Your task to perform on an android device: Search for "bose soundlink mini" on newegg.com, select the first entry, add it to the cart, then select checkout. Image 0: 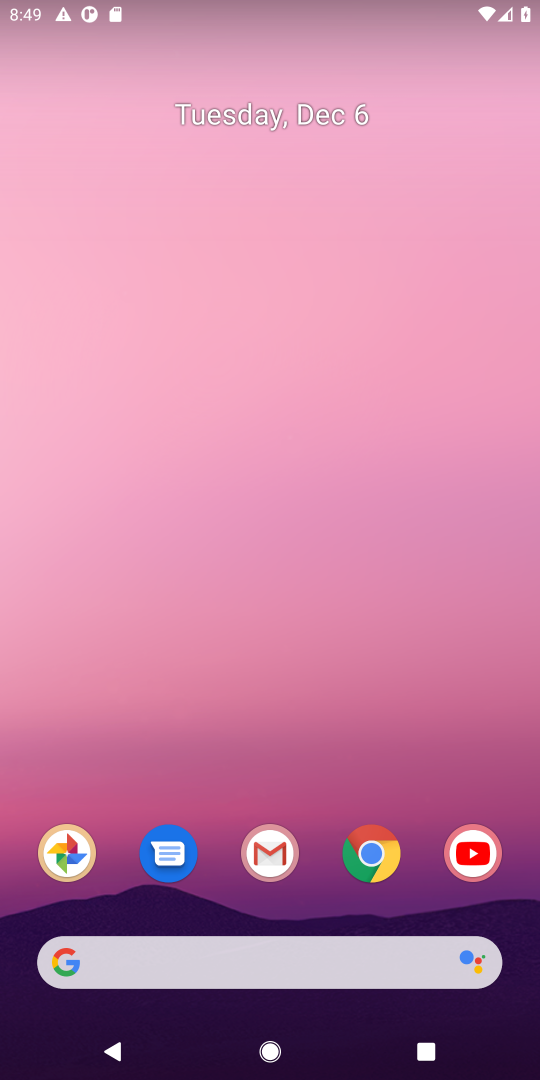
Step 0: drag from (303, 986) to (290, 365)
Your task to perform on an android device: Search for "bose soundlink mini" on newegg.com, select the first entry, add it to the cart, then select checkout. Image 1: 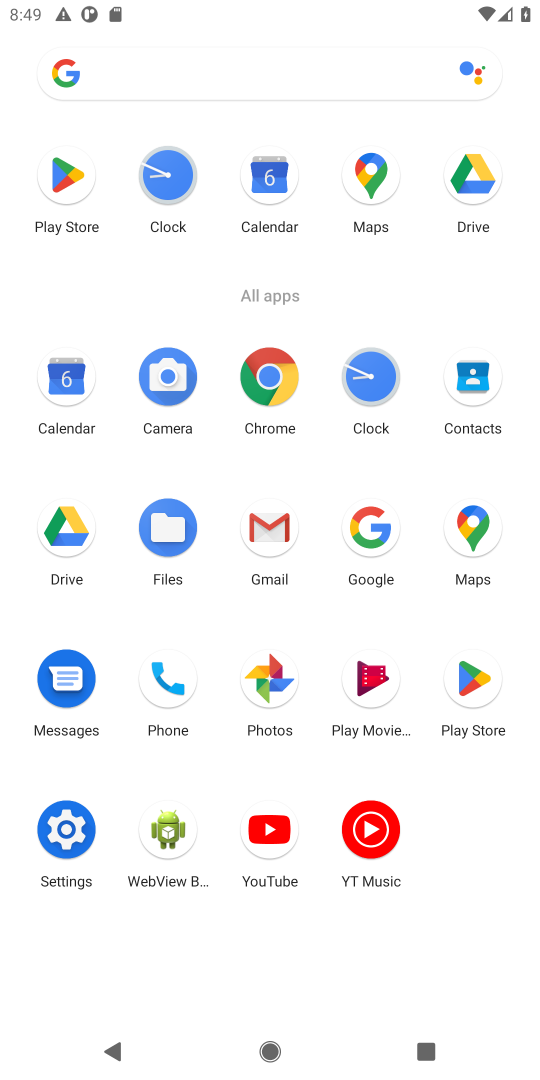
Step 1: click (367, 527)
Your task to perform on an android device: Search for "bose soundlink mini" on newegg.com, select the first entry, add it to the cart, then select checkout. Image 2: 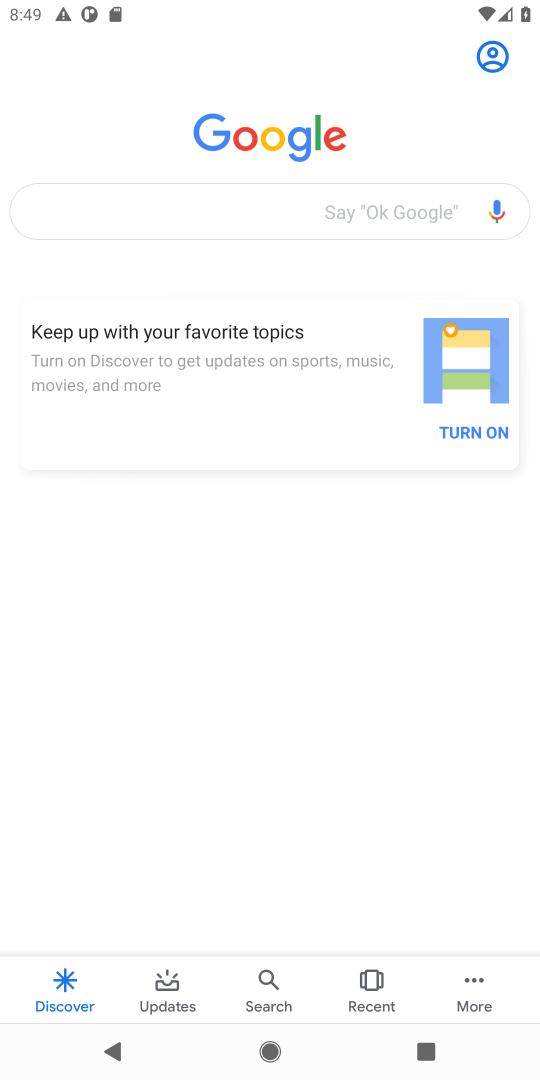
Step 2: click (113, 215)
Your task to perform on an android device: Search for "bose soundlink mini" on newegg.com, select the first entry, add it to the cart, then select checkout. Image 3: 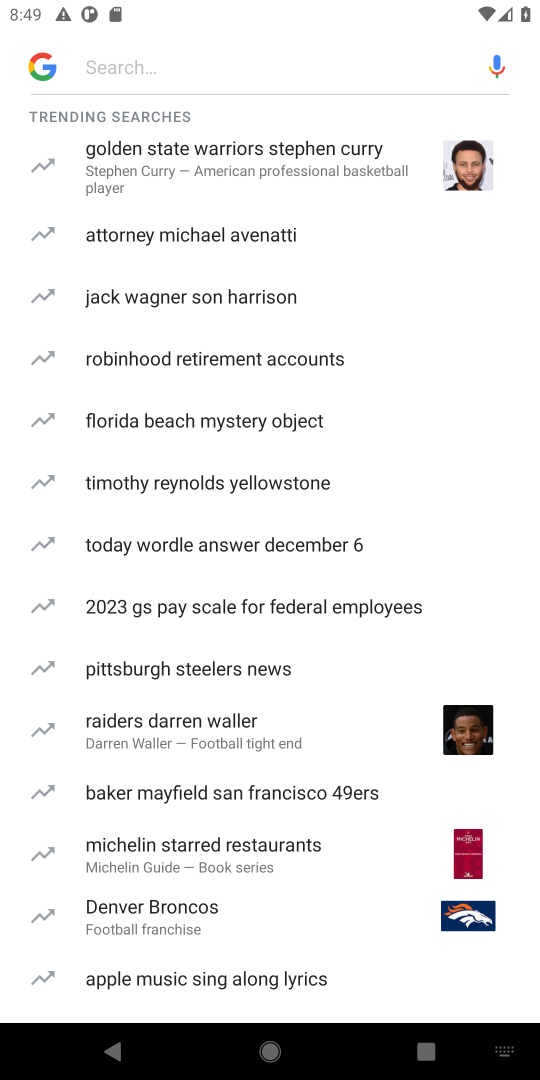
Step 3: type "newegg.com"
Your task to perform on an android device: Search for "bose soundlink mini" on newegg.com, select the first entry, add it to the cart, then select checkout. Image 4: 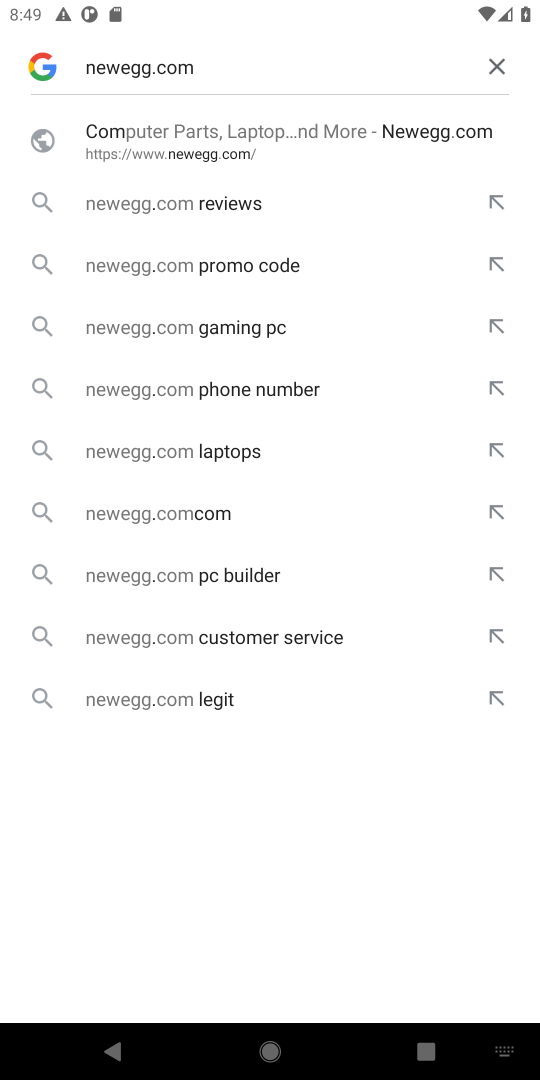
Step 4: click (174, 129)
Your task to perform on an android device: Search for "bose soundlink mini" on newegg.com, select the first entry, add it to the cart, then select checkout. Image 5: 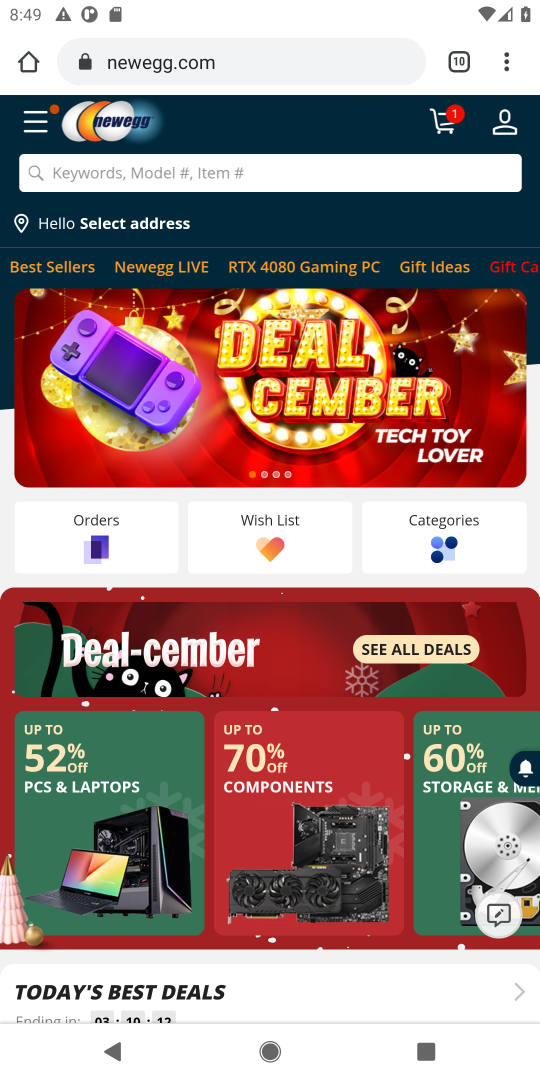
Step 5: click (90, 173)
Your task to perform on an android device: Search for "bose soundlink mini" on newegg.com, select the first entry, add it to the cart, then select checkout. Image 6: 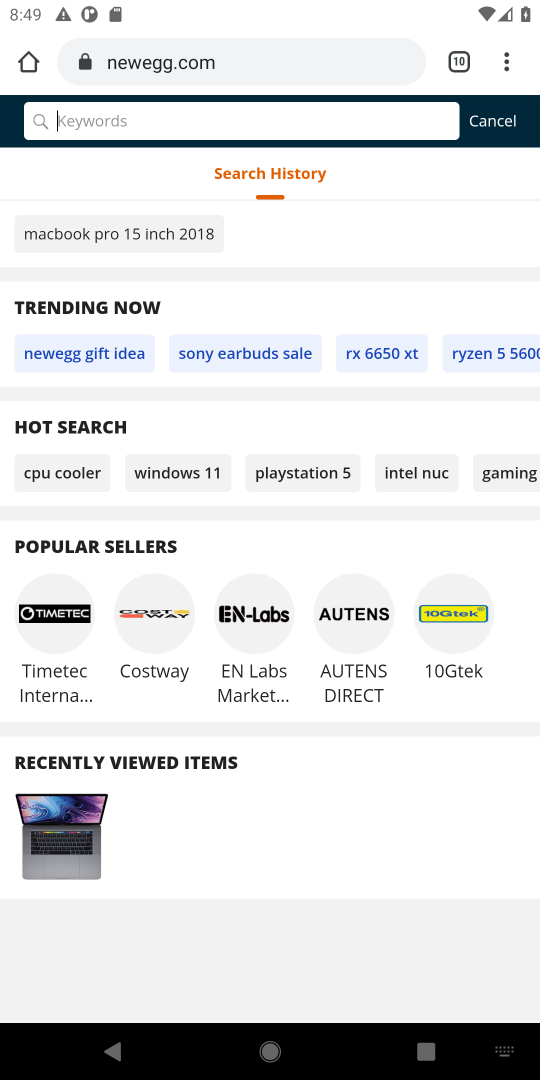
Step 6: type "bose soundlink mini"
Your task to perform on an android device: Search for "bose soundlink mini" on newegg.com, select the first entry, add it to the cart, then select checkout. Image 7: 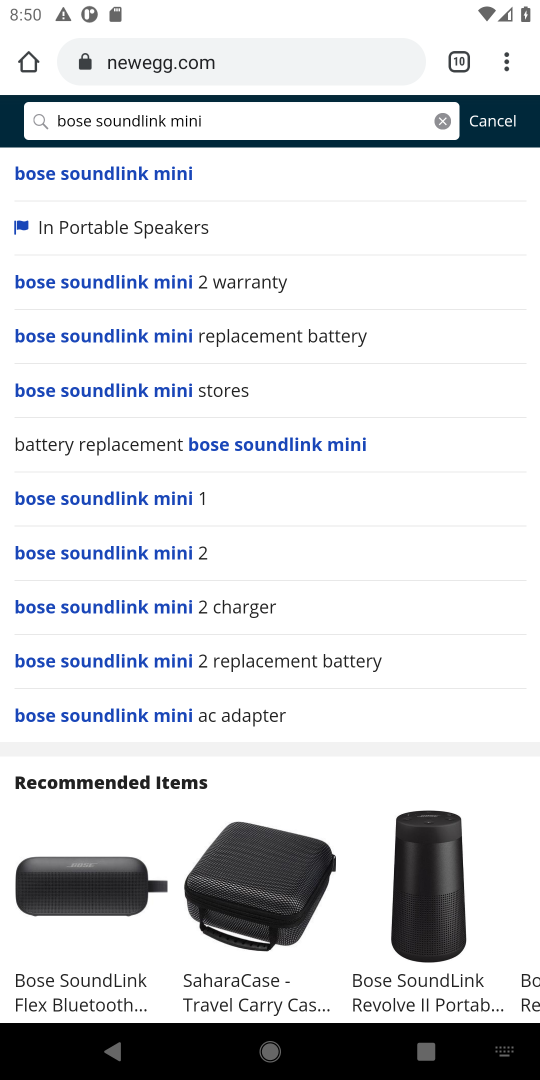
Step 7: click (66, 175)
Your task to perform on an android device: Search for "bose soundlink mini" on newegg.com, select the first entry, add it to the cart, then select checkout. Image 8: 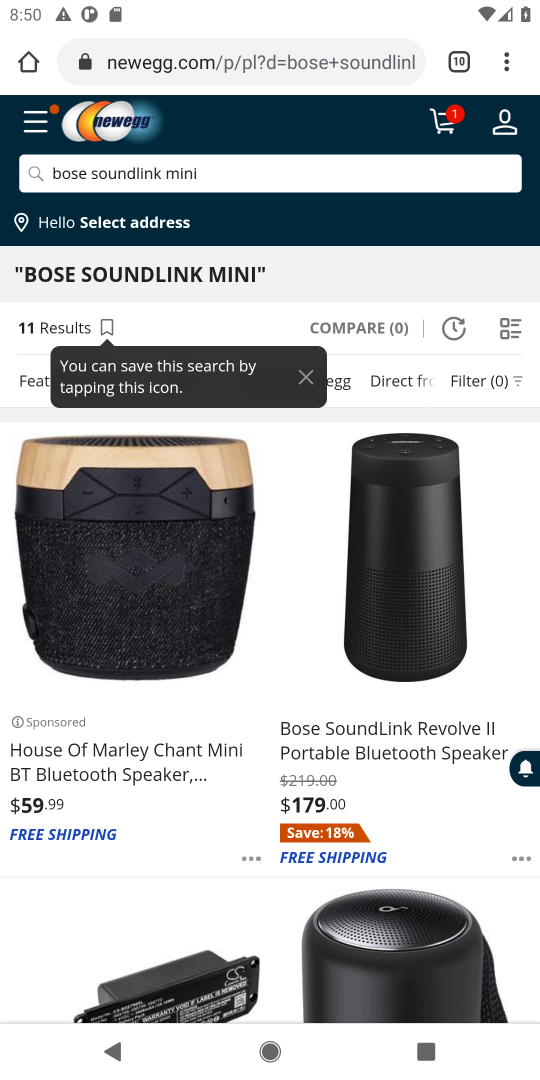
Step 8: click (106, 602)
Your task to perform on an android device: Search for "bose soundlink mini" on newegg.com, select the first entry, add it to the cart, then select checkout. Image 9: 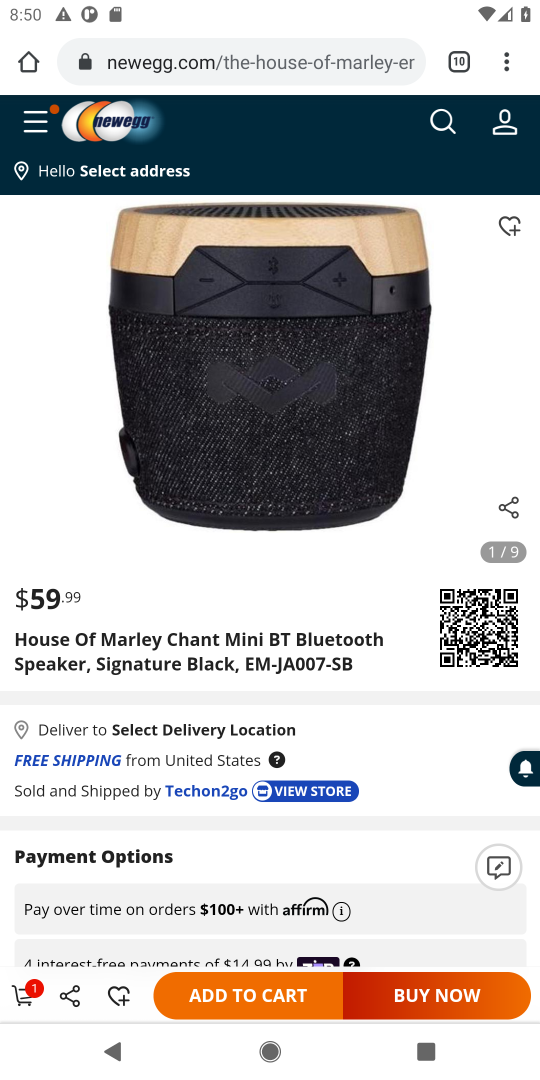
Step 9: click (259, 992)
Your task to perform on an android device: Search for "bose soundlink mini" on newegg.com, select the first entry, add it to the cart, then select checkout. Image 10: 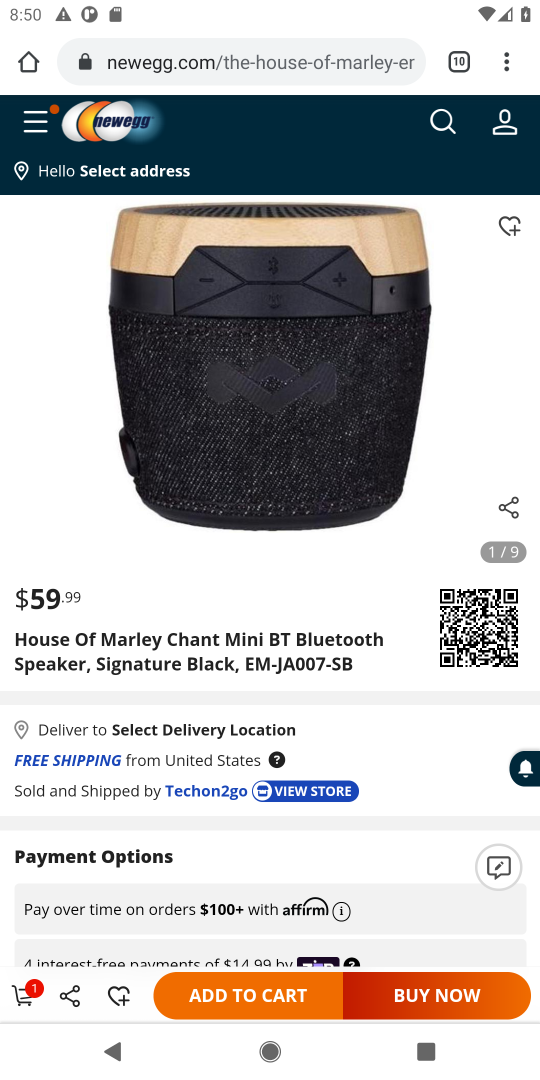
Step 10: click (243, 997)
Your task to perform on an android device: Search for "bose soundlink mini" on newegg.com, select the first entry, add it to the cart, then select checkout. Image 11: 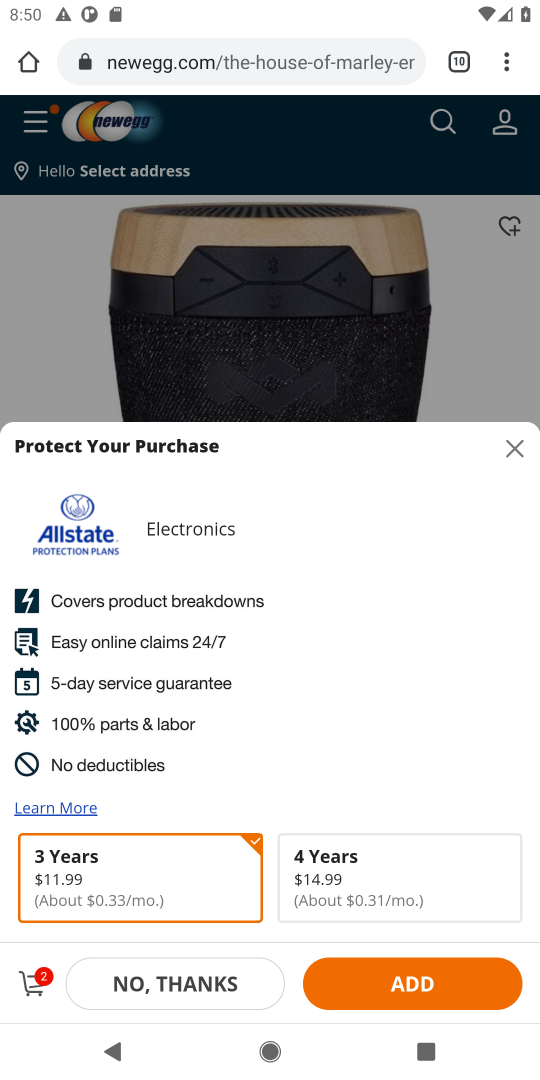
Step 11: click (520, 446)
Your task to perform on an android device: Search for "bose soundlink mini" on newegg.com, select the first entry, add it to the cart, then select checkout. Image 12: 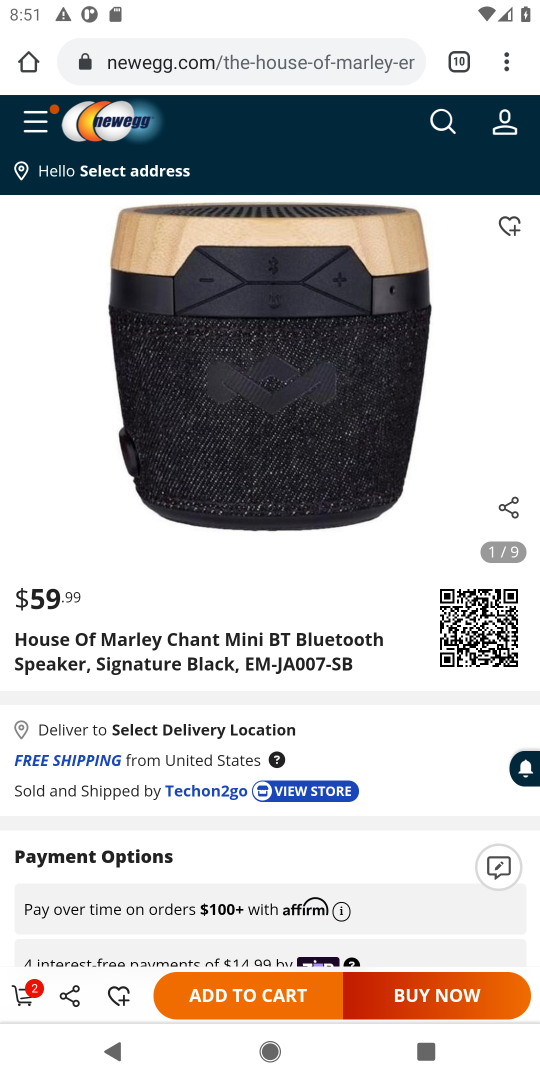
Step 12: click (19, 997)
Your task to perform on an android device: Search for "bose soundlink mini" on newegg.com, select the first entry, add it to the cart, then select checkout. Image 13: 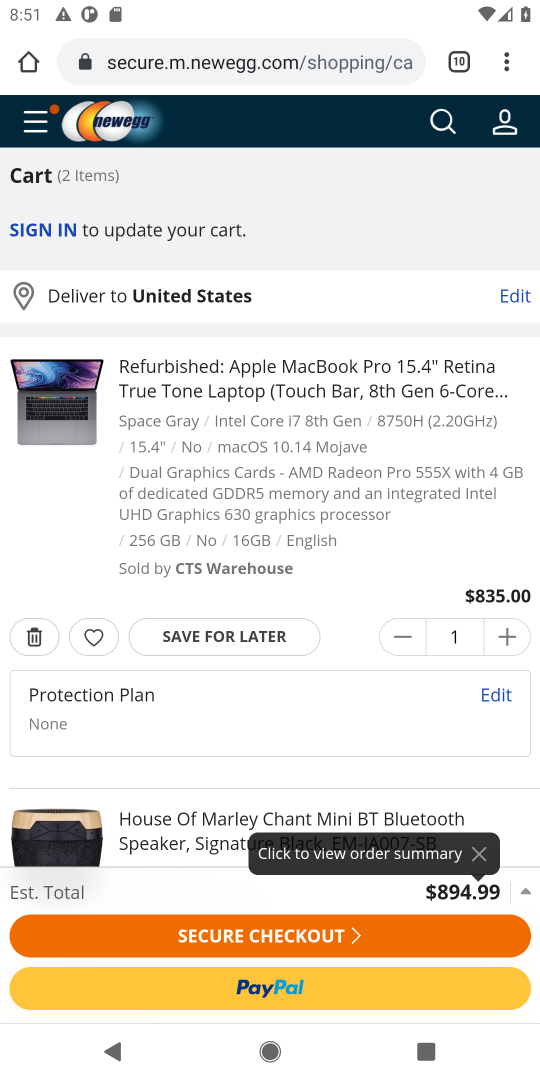
Step 13: drag from (332, 815) to (262, 309)
Your task to perform on an android device: Search for "bose soundlink mini" on newegg.com, select the first entry, add it to the cart, then select checkout. Image 14: 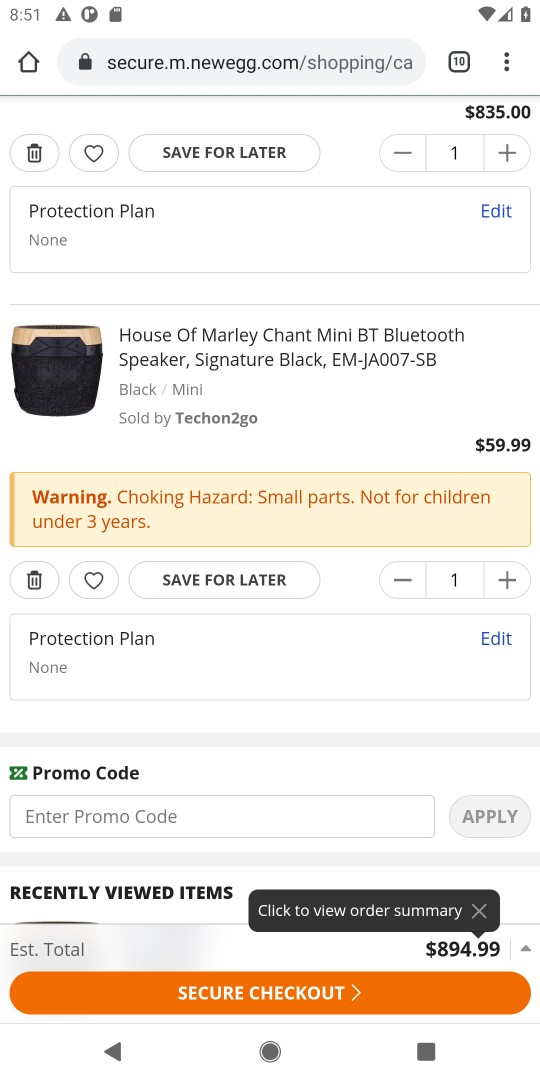
Step 14: click (263, 998)
Your task to perform on an android device: Search for "bose soundlink mini" on newegg.com, select the first entry, add it to the cart, then select checkout. Image 15: 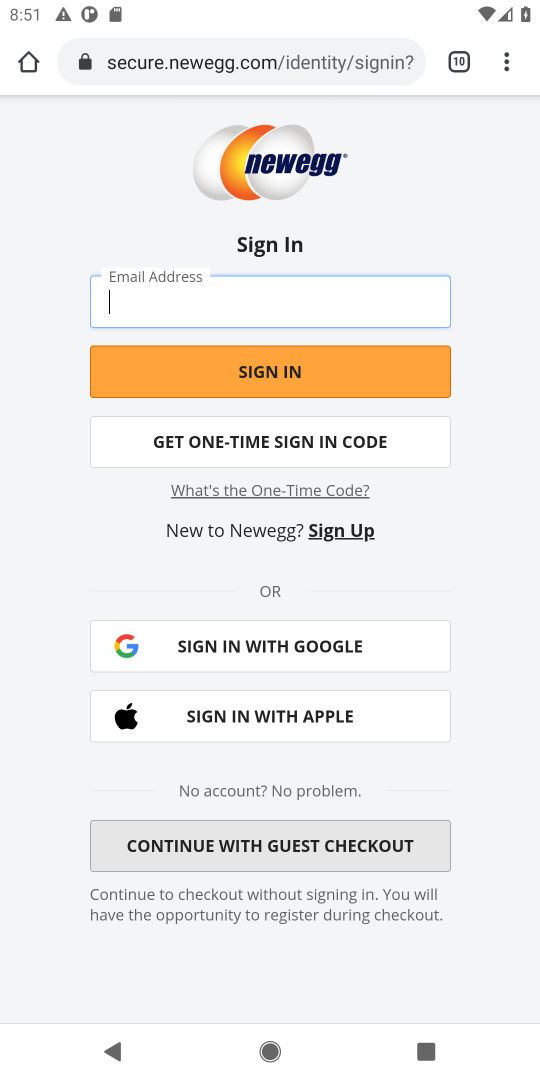
Step 15: task complete